Your task to perform on an android device: Check the news Image 0: 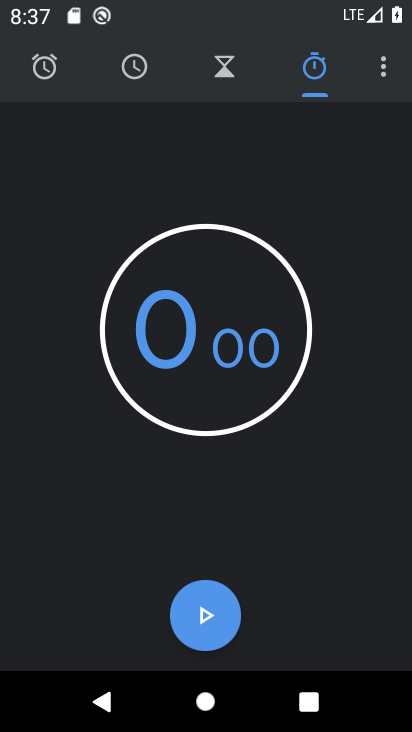
Step 0: press home button
Your task to perform on an android device: Check the news Image 1: 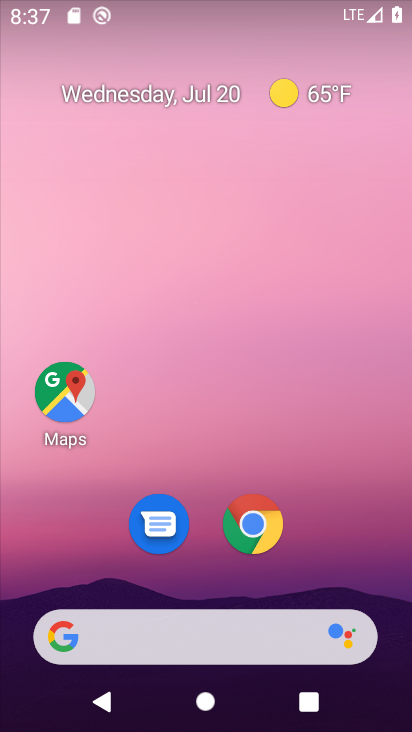
Step 1: click (248, 633)
Your task to perform on an android device: Check the news Image 2: 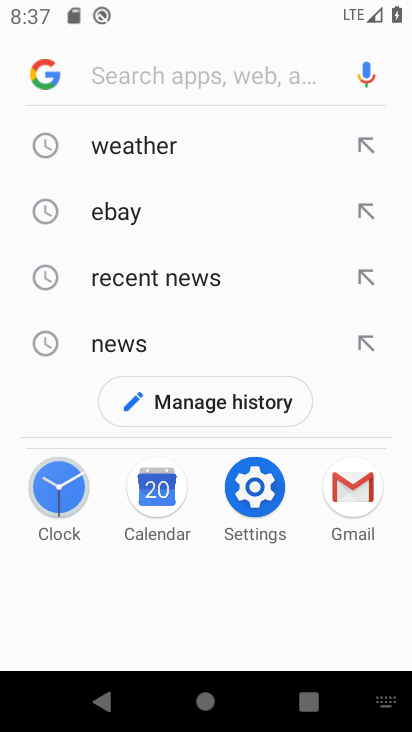
Step 2: click (137, 332)
Your task to perform on an android device: Check the news Image 3: 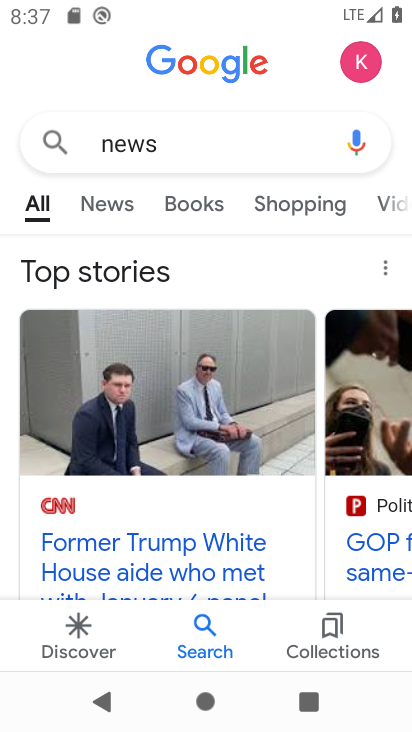
Step 3: drag from (166, 520) to (198, 216)
Your task to perform on an android device: Check the news Image 4: 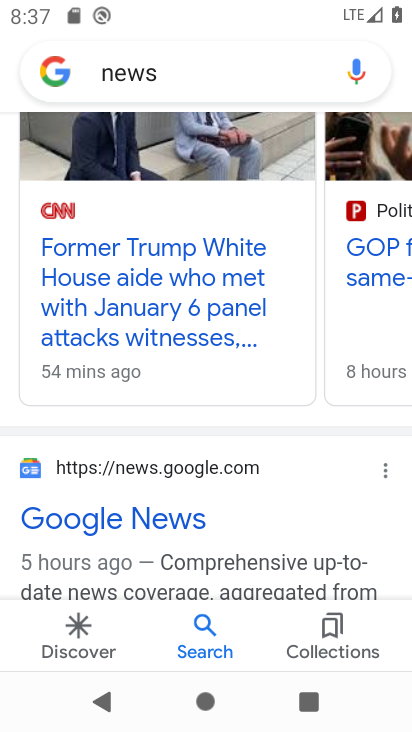
Step 4: drag from (245, 275) to (77, 330)
Your task to perform on an android device: Check the news Image 5: 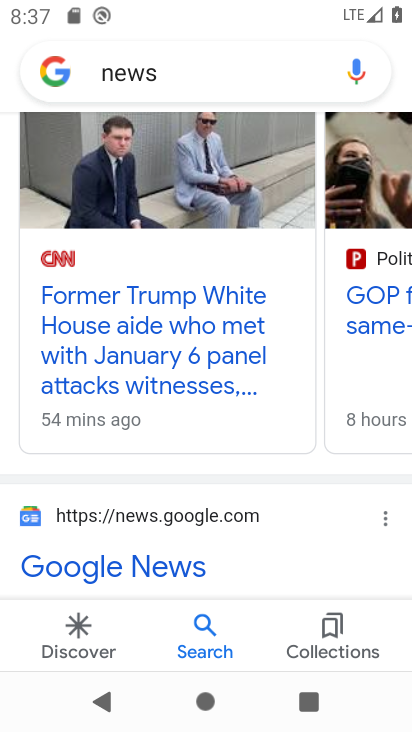
Step 5: click (178, 333)
Your task to perform on an android device: Check the news Image 6: 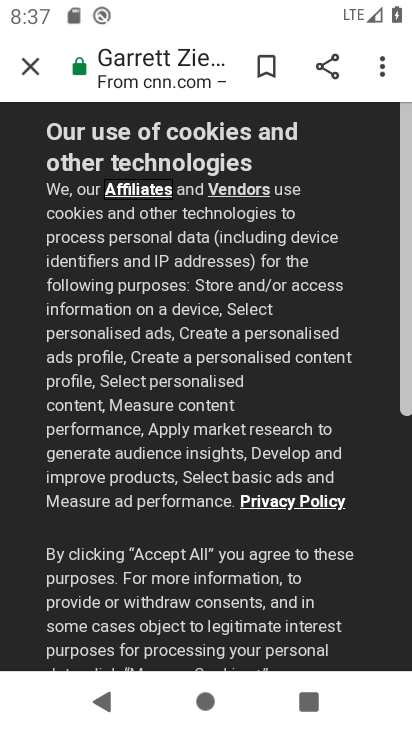
Step 6: drag from (213, 588) to (262, 195)
Your task to perform on an android device: Check the news Image 7: 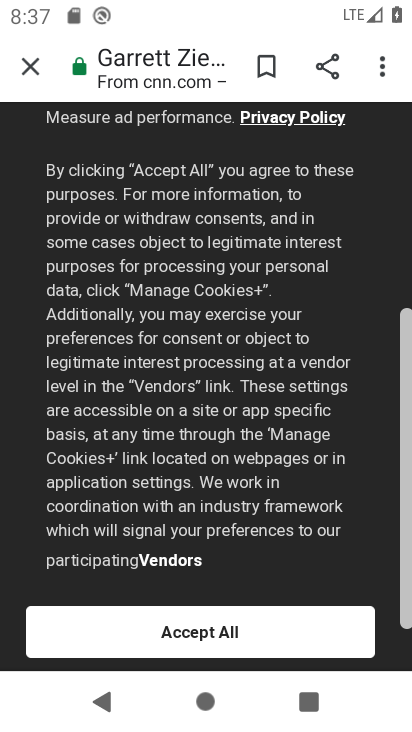
Step 7: drag from (289, 505) to (296, 423)
Your task to perform on an android device: Check the news Image 8: 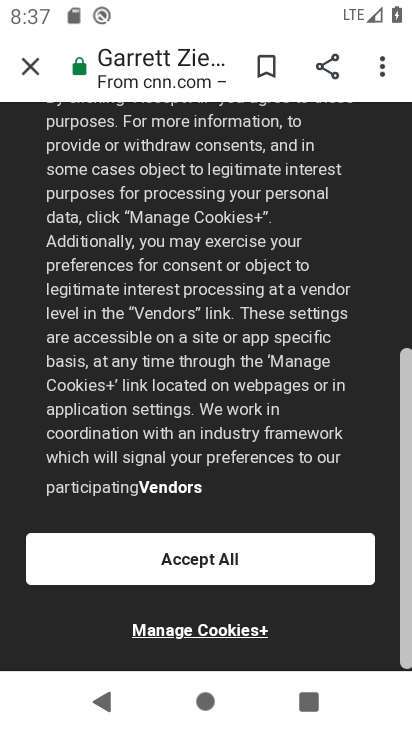
Step 8: click (291, 559)
Your task to perform on an android device: Check the news Image 9: 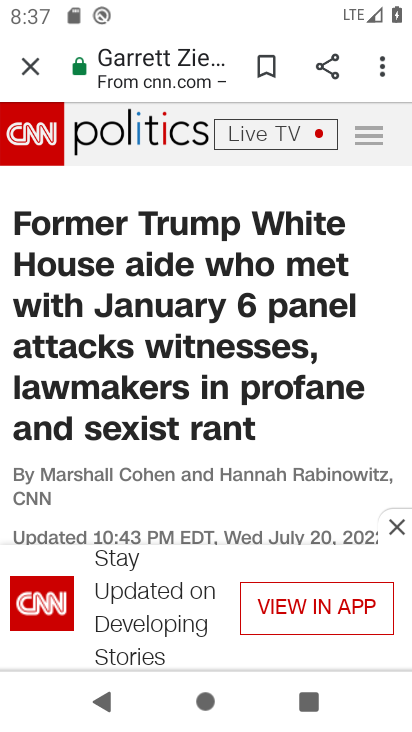
Step 9: task complete